Your task to perform on an android device: check data usage Image 0: 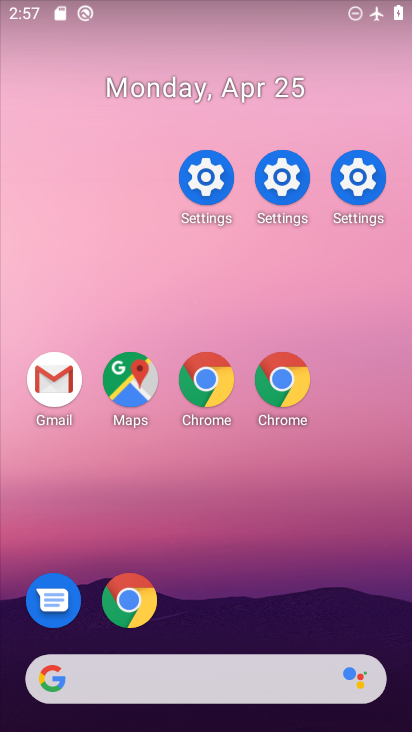
Step 0: drag from (230, 647) to (199, 98)
Your task to perform on an android device: check data usage Image 1: 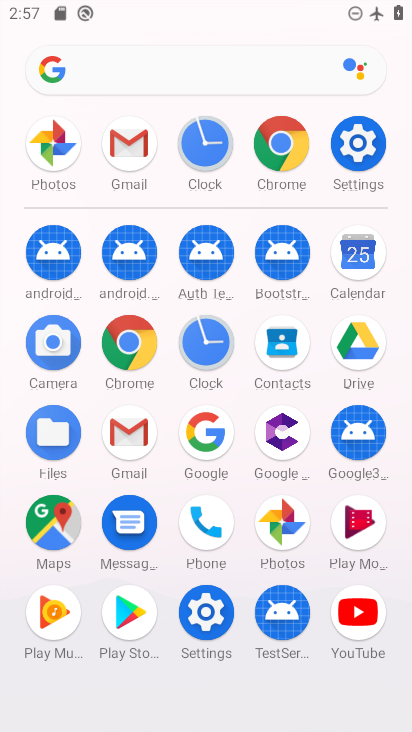
Step 1: click (357, 151)
Your task to perform on an android device: check data usage Image 2: 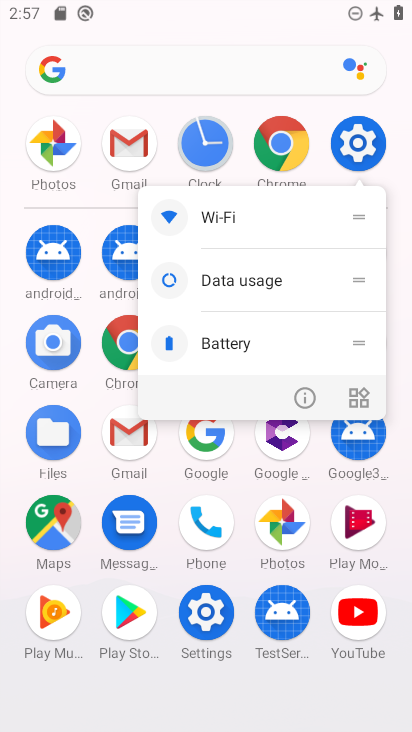
Step 2: click (357, 151)
Your task to perform on an android device: check data usage Image 3: 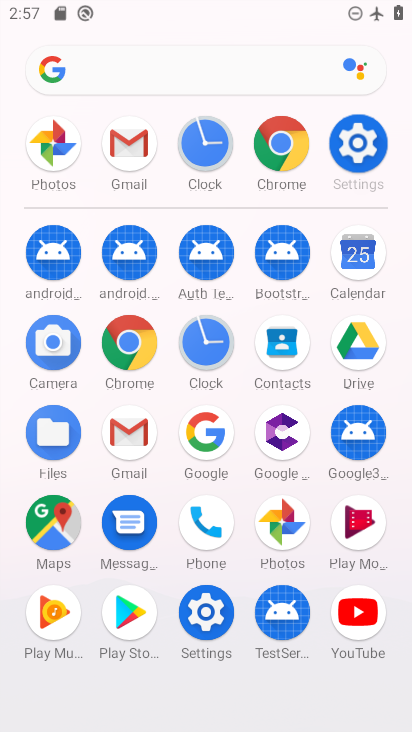
Step 3: click (357, 151)
Your task to perform on an android device: check data usage Image 4: 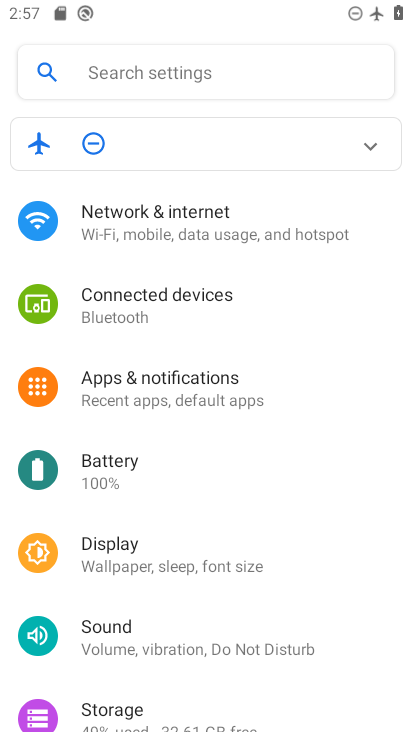
Step 4: click (147, 227)
Your task to perform on an android device: check data usage Image 5: 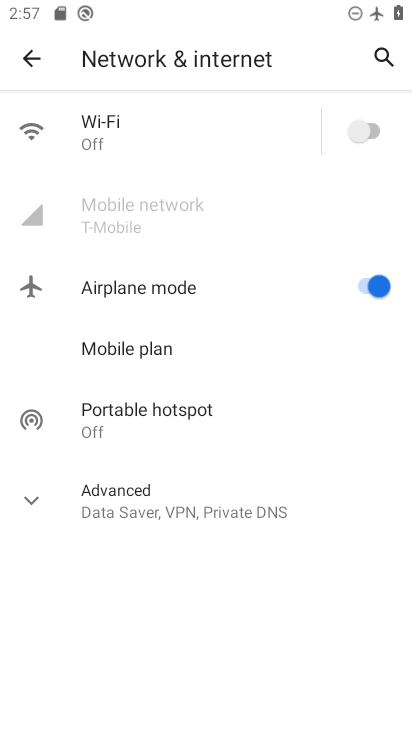
Step 5: task complete